Your task to perform on an android device: What's the weather going to be this weekend? Image 0: 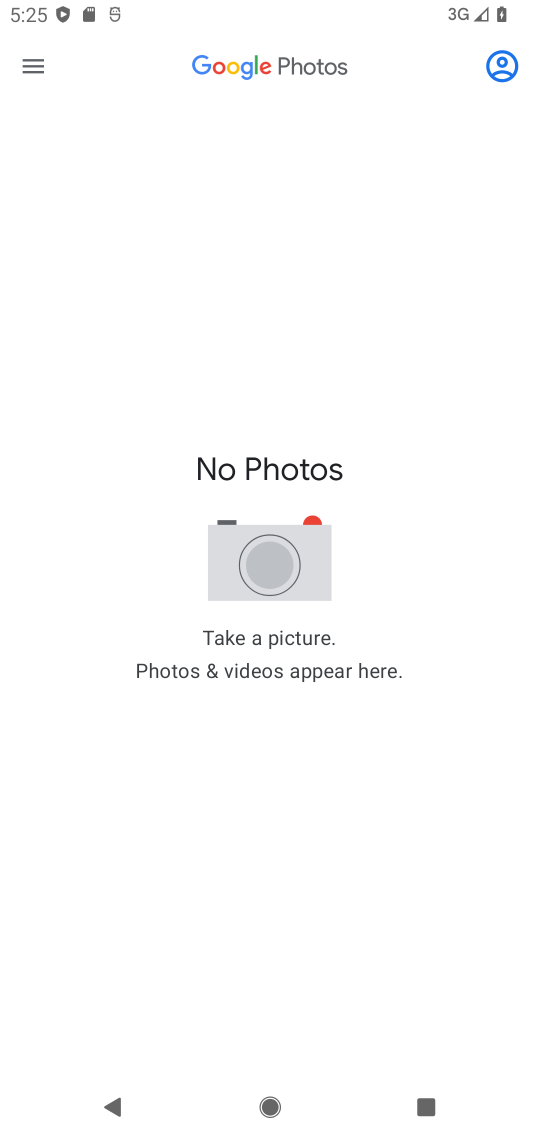
Step 0: press home button
Your task to perform on an android device: What's the weather going to be this weekend? Image 1: 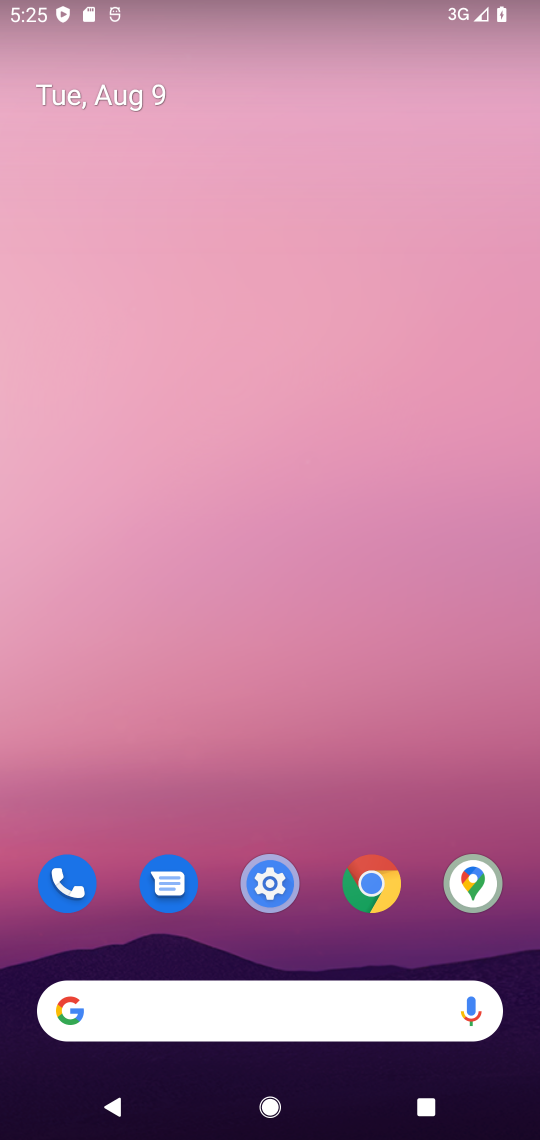
Step 1: drag from (265, 824) to (258, 304)
Your task to perform on an android device: What's the weather going to be this weekend? Image 2: 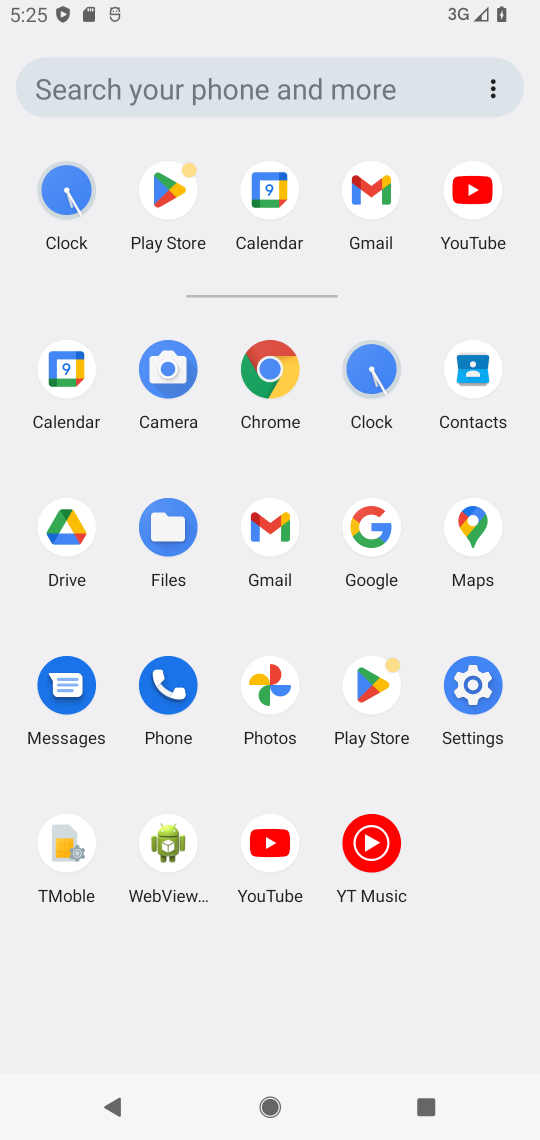
Step 2: click (358, 563)
Your task to perform on an android device: What's the weather going to be this weekend? Image 3: 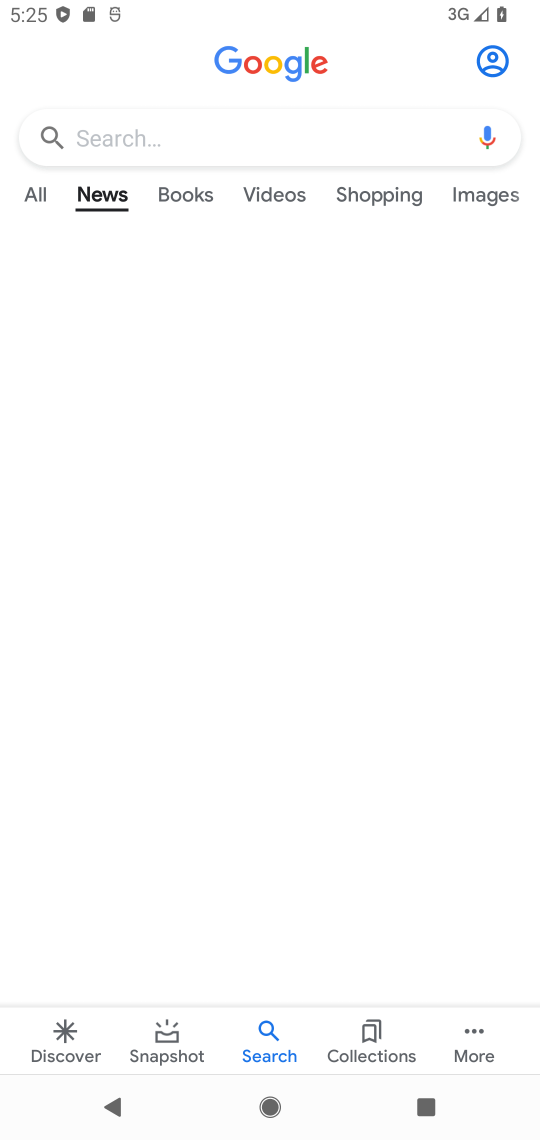
Step 3: click (182, 134)
Your task to perform on an android device: What's the weather going to be this weekend? Image 4: 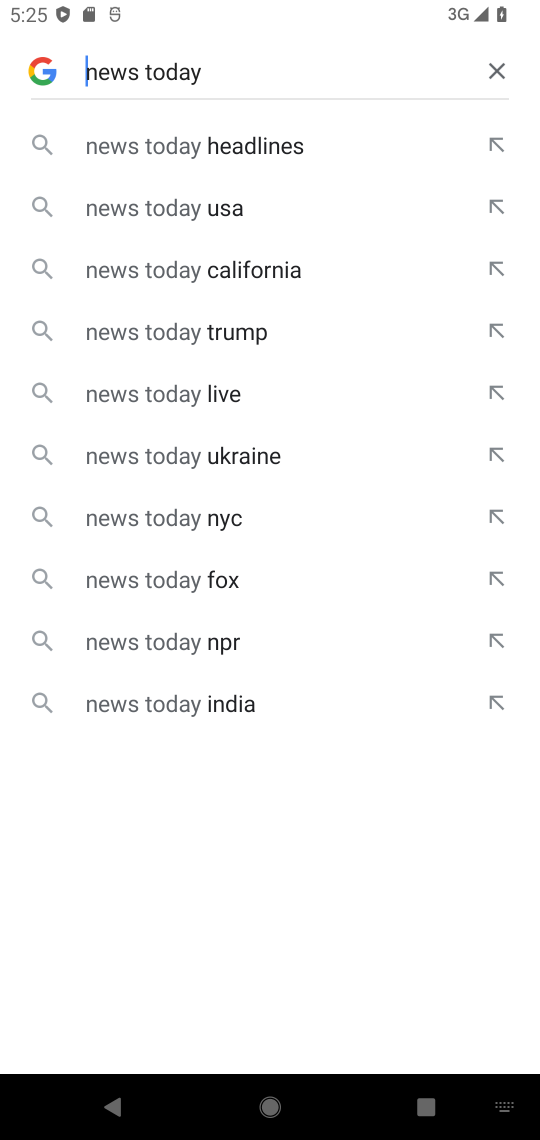
Step 4: type "weather"
Your task to perform on an android device: What's the weather going to be this weekend? Image 5: 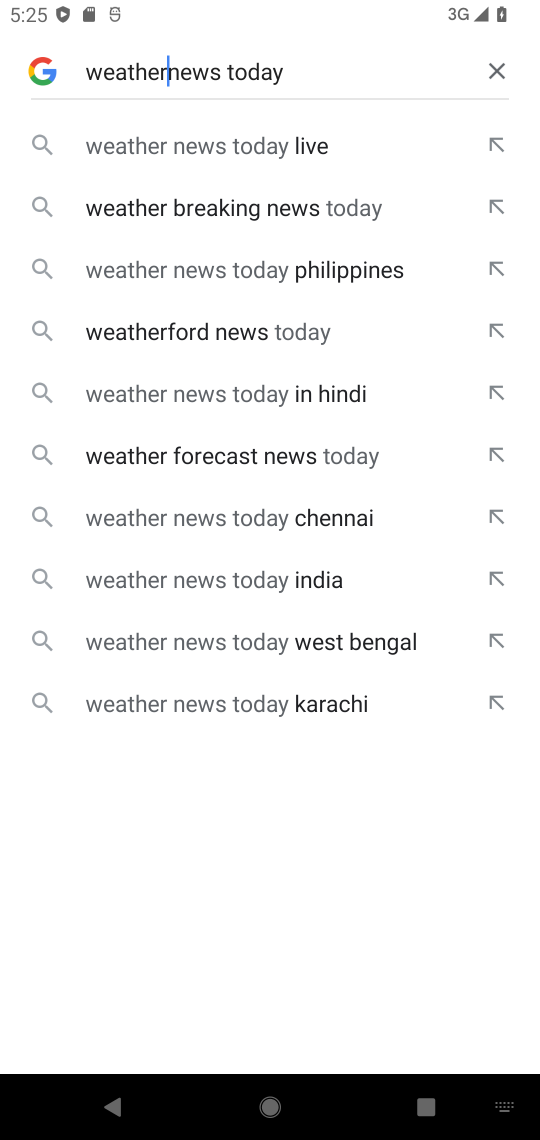
Step 5: click (265, 148)
Your task to perform on an android device: What's the weather going to be this weekend? Image 6: 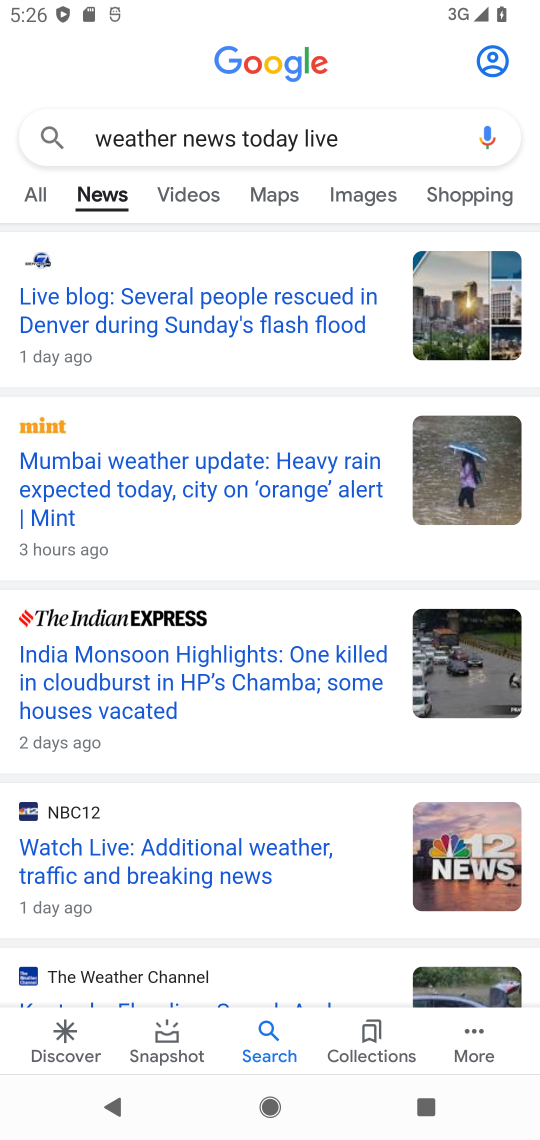
Step 6: click (36, 200)
Your task to perform on an android device: What's the weather going to be this weekend? Image 7: 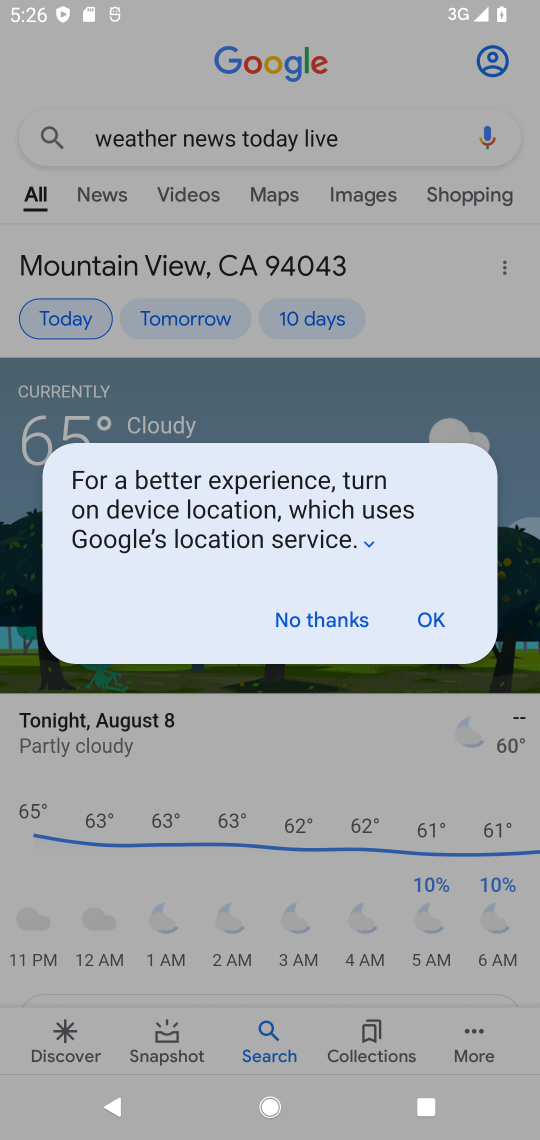
Step 7: click (349, 622)
Your task to perform on an android device: What's the weather going to be this weekend? Image 8: 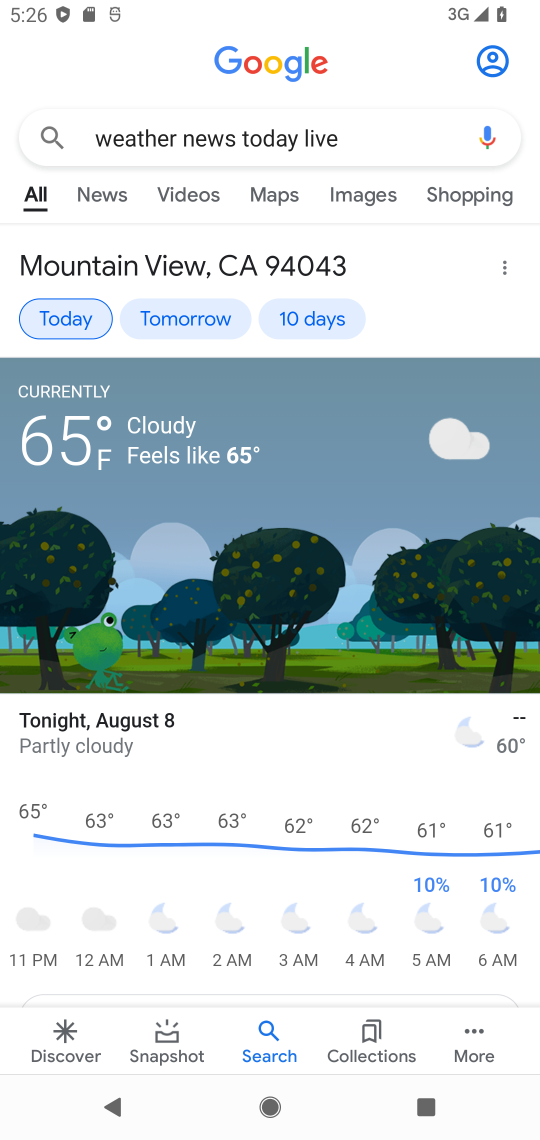
Step 8: click (286, 321)
Your task to perform on an android device: What's the weather going to be this weekend? Image 9: 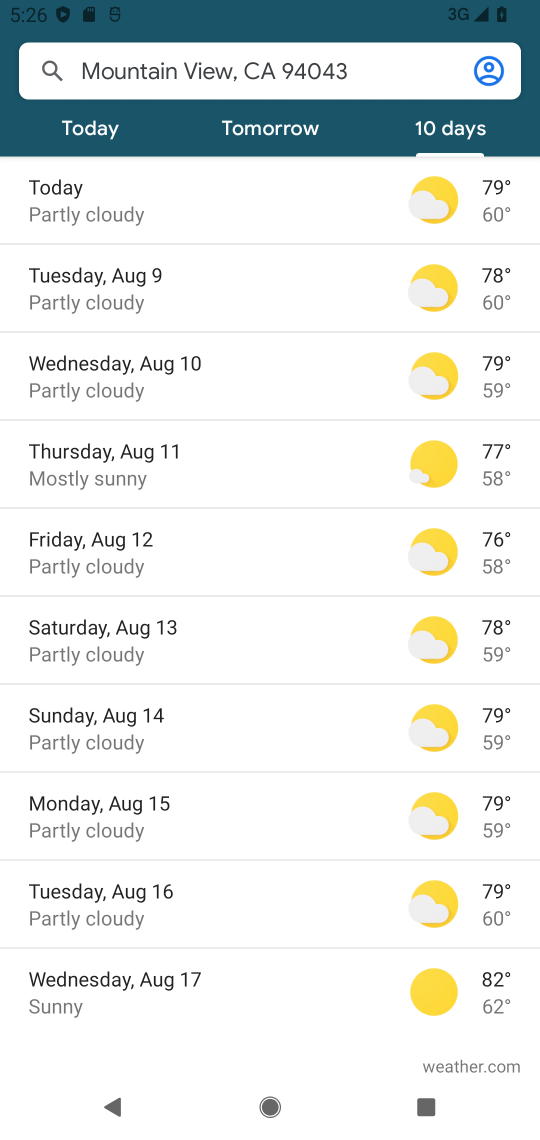
Step 9: task complete